Your task to perform on an android device: What is the recent news? Image 0: 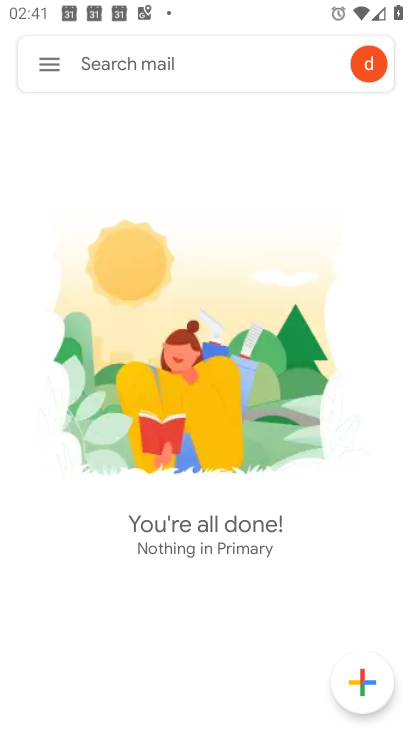
Step 0: press home button
Your task to perform on an android device: What is the recent news? Image 1: 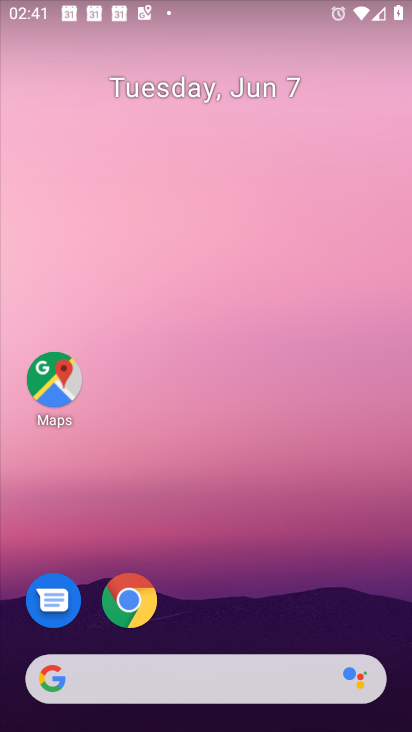
Step 1: task complete